Your task to perform on an android device: Open Google Chrome and open the bookmarks view Image 0: 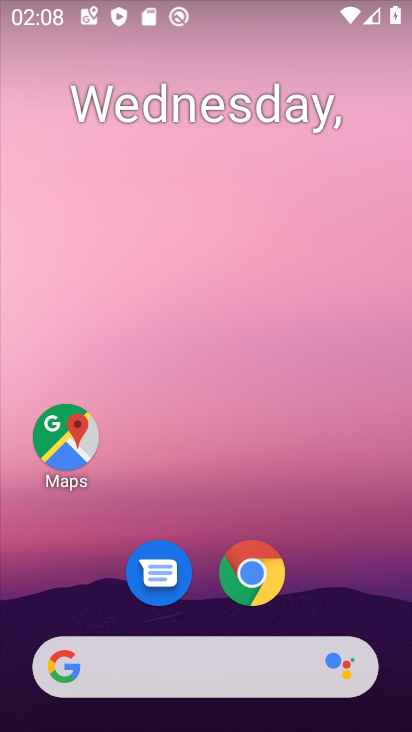
Step 0: click (265, 560)
Your task to perform on an android device: Open Google Chrome and open the bookmarks view Image 1: 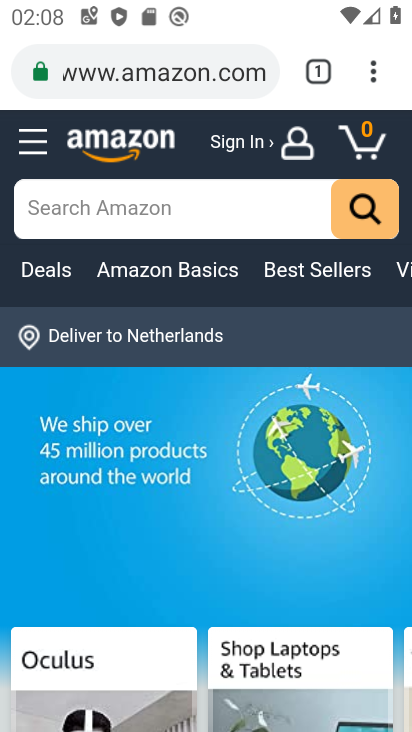
Step 1: click (374, 72)
Your task to perform on an android device: Open Google Chrome and open the bookmarks view Image 2: 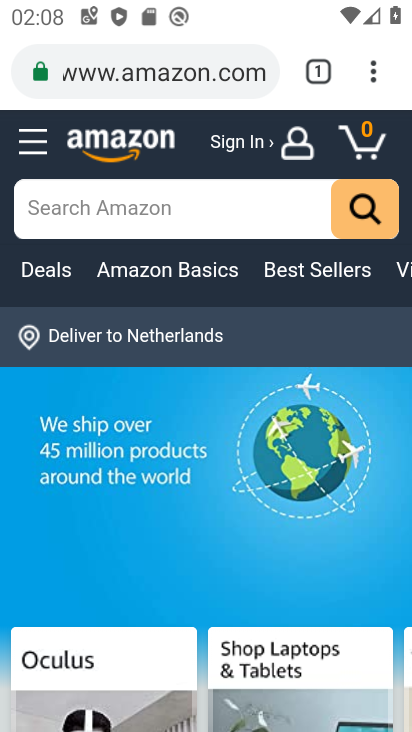
Step 2: click (374, 74)
Your task to perform on an android device: Open Google Chrome and open the bookmarks view Image 3: 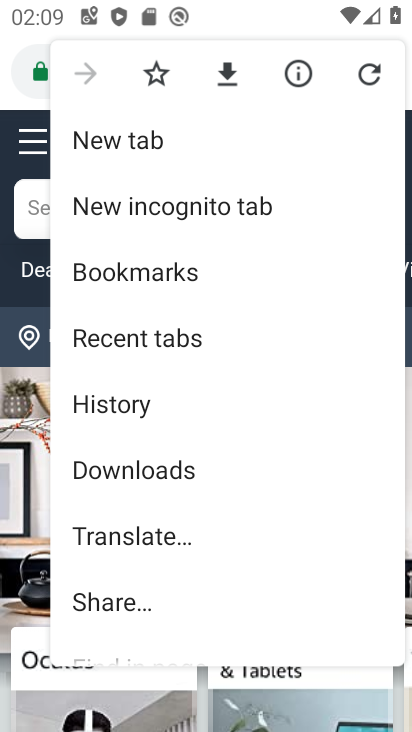
Step 3: click (144, 272)
Your task to perform on an android device: Open Google Chrome and open the bookmarks view Image 4: 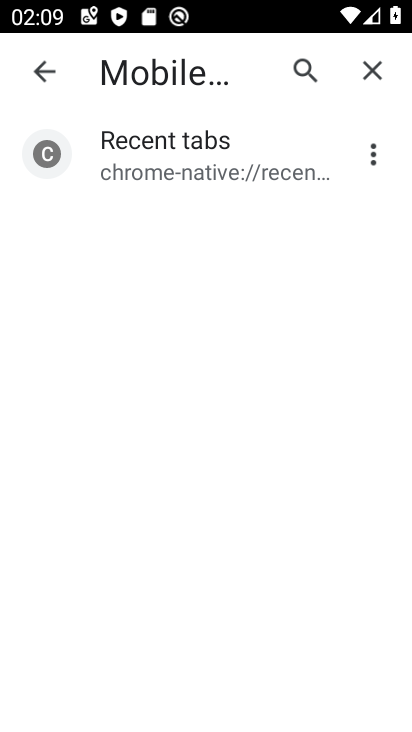
Step 4: click (182, 148)
Your task to perform on an android device: Open Google Chrome and open the bookmarks view Image 5: 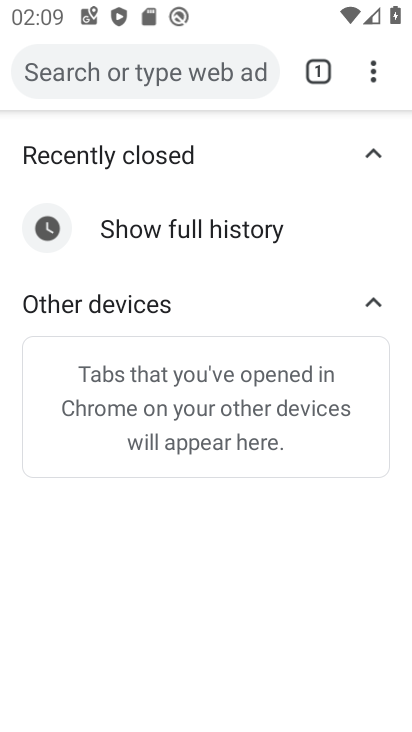
Step 5: task complete